Your task to perform on an android device: Open Wikipedia Image 0: 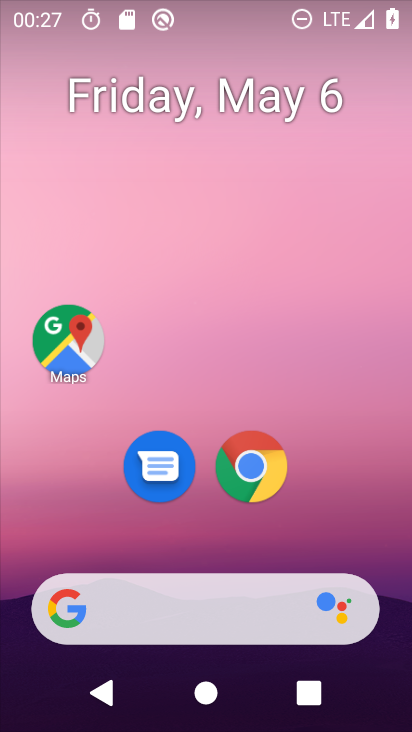
Step 0: drag from (192, 571) to (243, 290)
Your task to perform on an android device: Open Wikipedia Image 1: 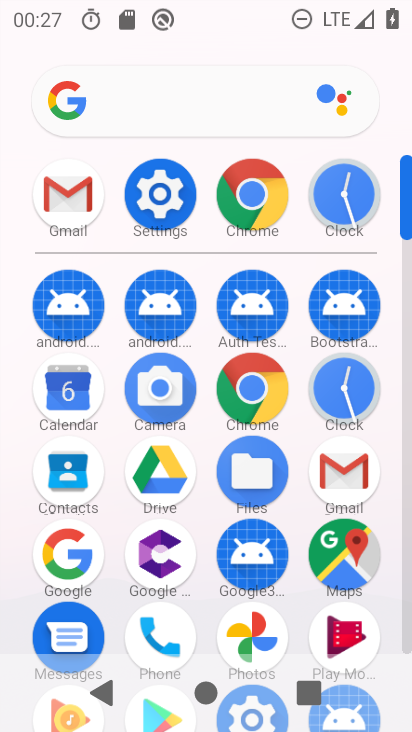
Step 1: click (242, 204)
Your task to perform on an android device: Open Wikipedia Image 2: 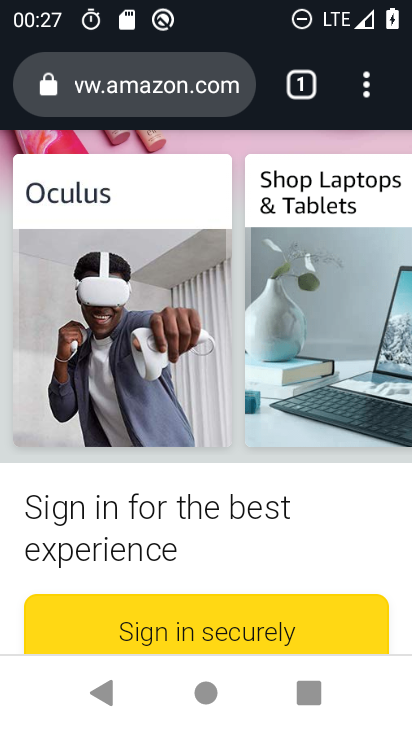
Step 2: click (308, 74)
Your task to perform on an android device: Open Wikipedia Image 3: 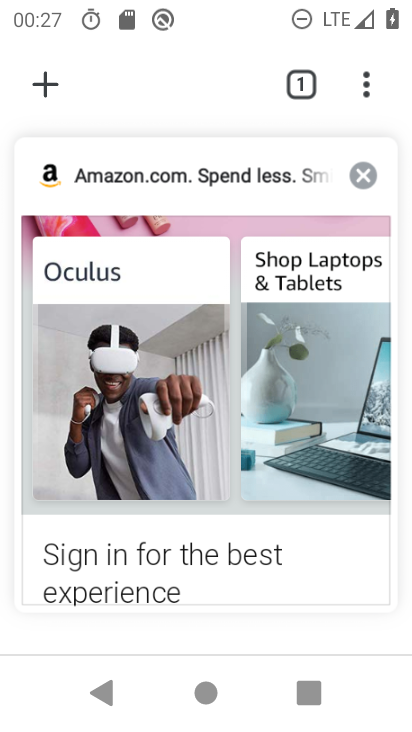
Step 3: click (369, 176)
Your task to perform on an android device: Open Wikipedia Image 4: 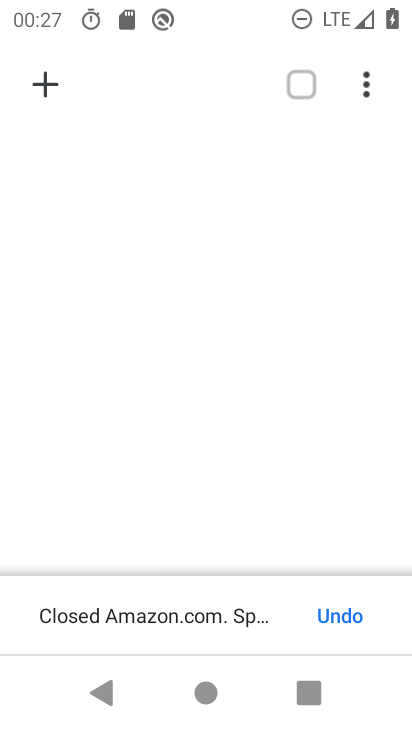
Step 4: click (54, 84)
Your task to perform on an android device: Open Wikipedia Image 5: 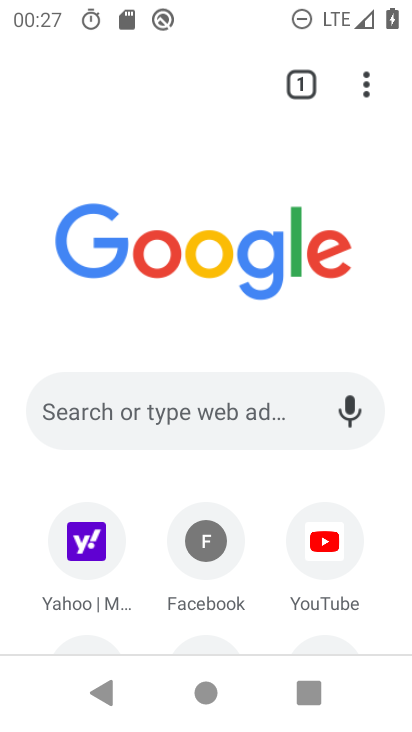
Step 5: drag from (227, 621) to (231, 345)
Your task to perform on an android device: Open Wikipedia Image 6: 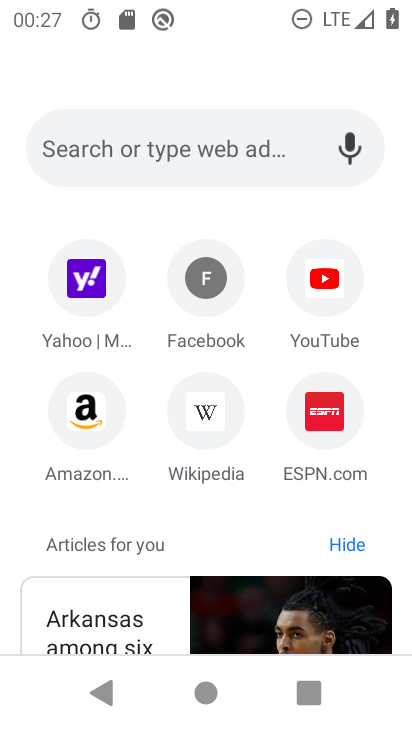
Step 6: click (201, 416)
Your task to perform on an android device: Open Wikipedia Image 7: 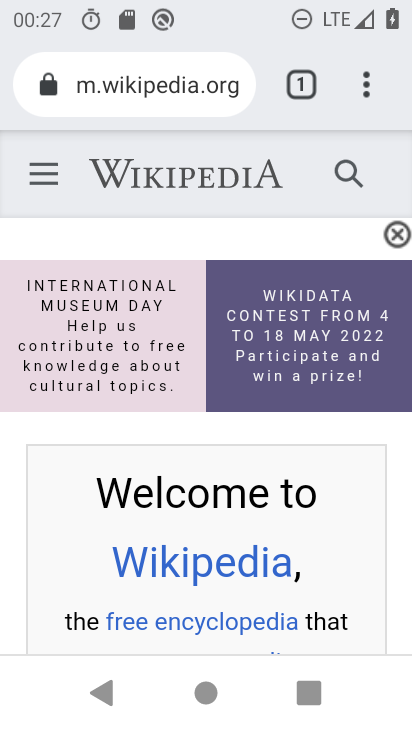
Step 7: task complete